Your task to perform on an android device: When is my next appointment? Image 0: 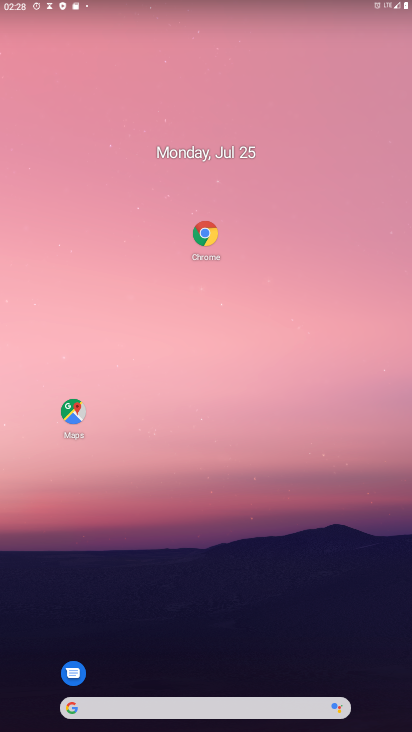
Step 0: drag from (261, 658) to (184, 1)
Your task to perform on an android device: When is my next appointment? Image 1: 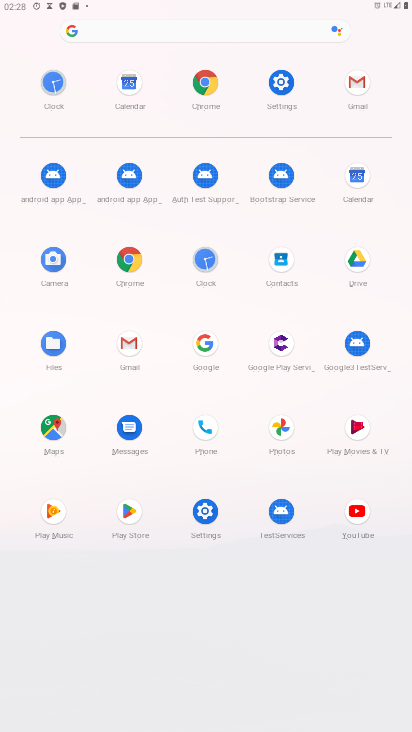
Step 1: click (353, 171)
Your task to perform on an android device: When is my next appointment? Image 2: 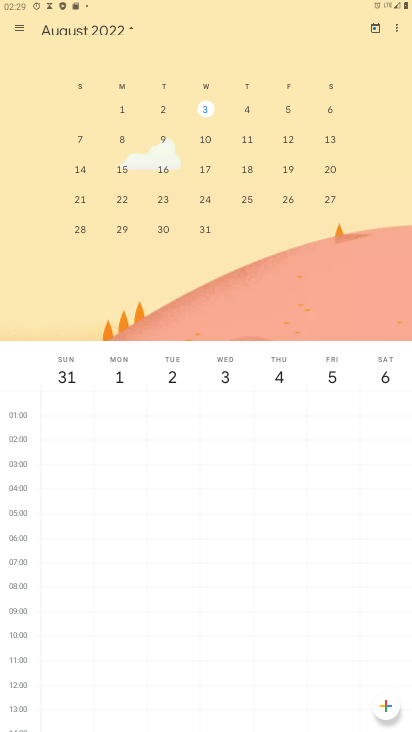
Step 2: click (122, 103)
Your task to perform on an android device: When is my next appointment? Image 3: 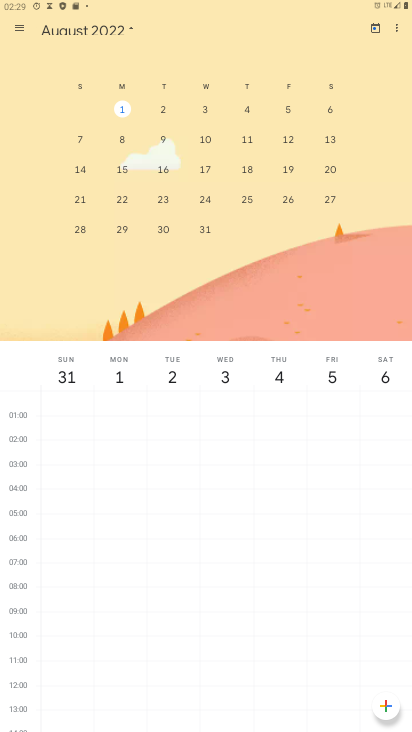
Step 3: task complete